Your task to perform on an android device: change alarm snooze length Image 0: 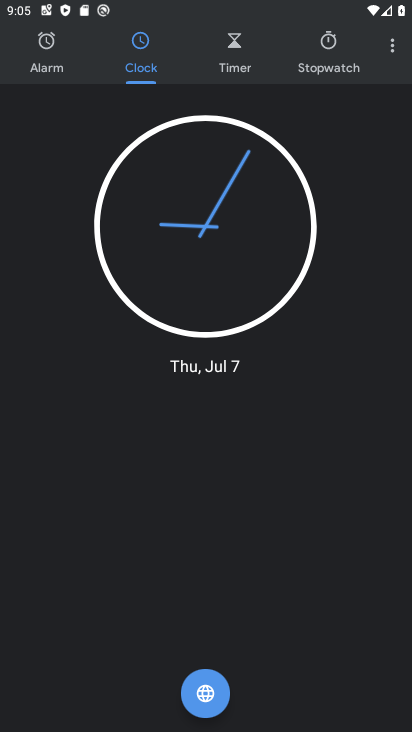
Step 0: press home button
Your task to perform on an android device: change alarm snooze length Image 1: 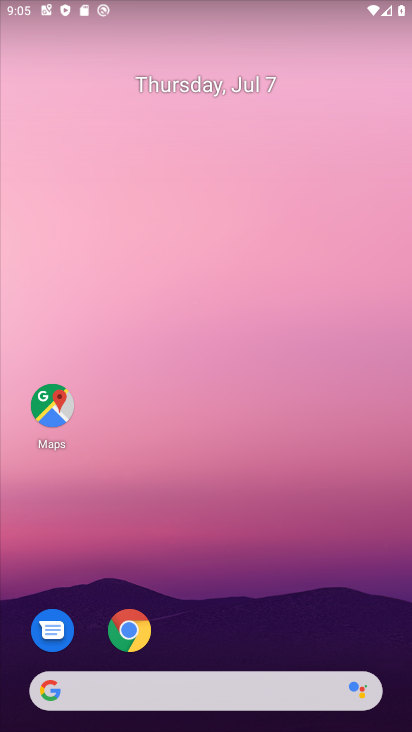
Step 1: drag from (205, 617) to (169, 225)
Your task to perform on an android device: change alarm snooze length Image 2: 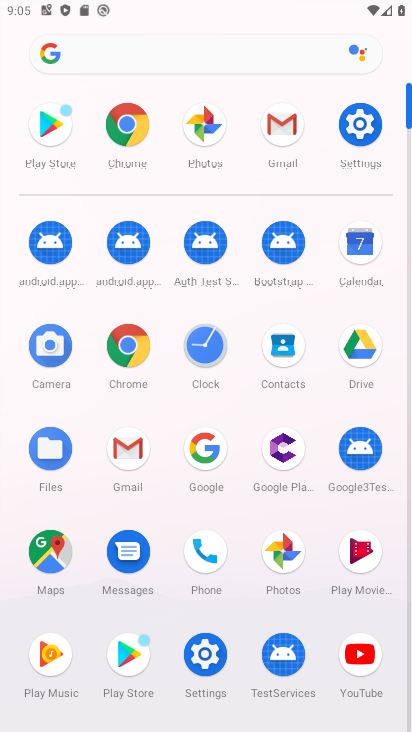
Step 2: click (211, 344)
Your task to perform on an android device: change alarm snooze length Image 3: 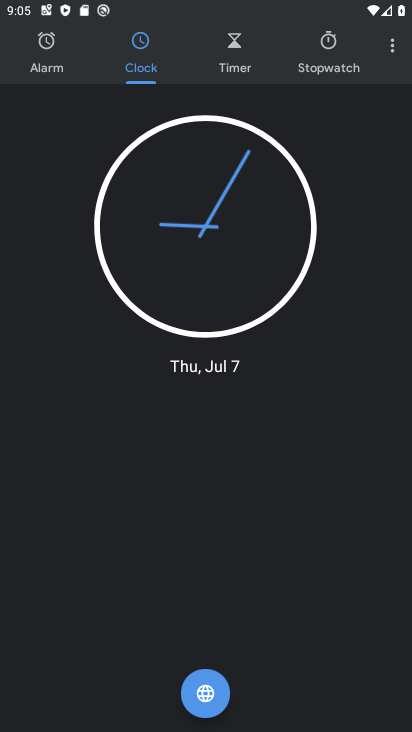
Step 3: click (387, 46)
Your task to perform on an android device: change alarm snooze length Image 4: 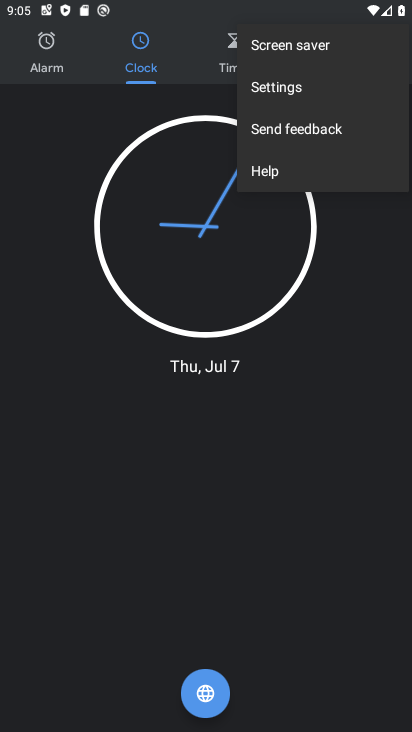
Step 4: click (328, 87)
Your task to perform on an android device: change alarm snooze length Image 5: 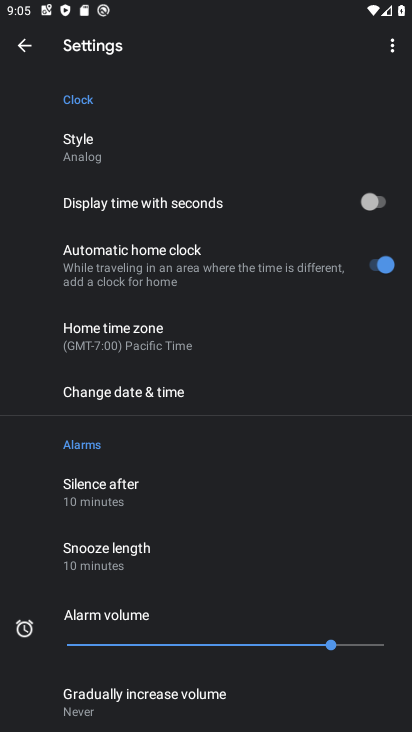
Step 5: click (168, 563)
Your task to perform on an android device: change alarm snooze length Image 6: 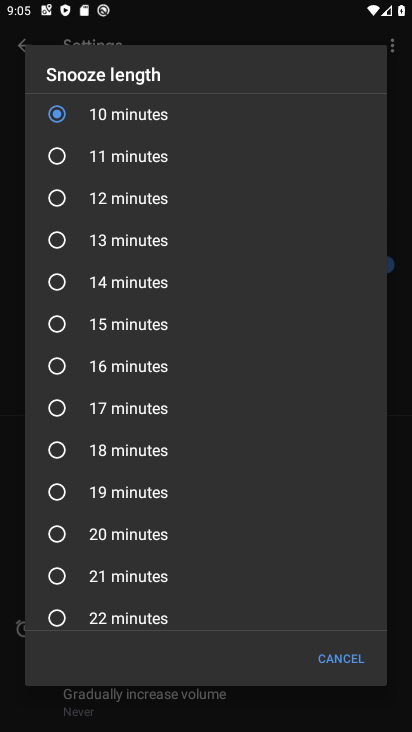
Step 6: click (93, 504)
Your task to perform on an android device: change alarm snooze length Image 7: 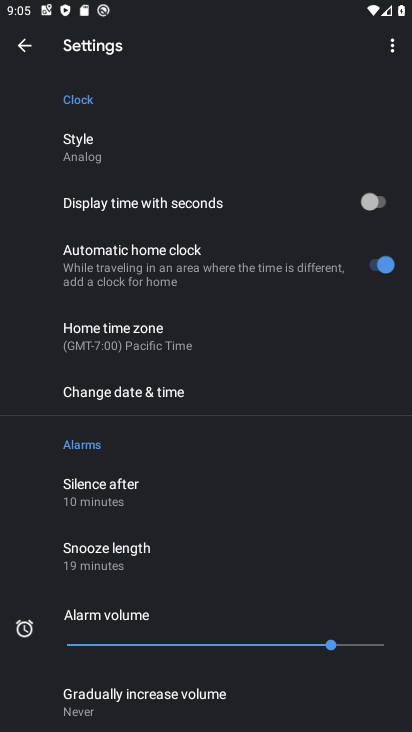
Step 7: task complete